Your task to perform on an android device: allow cookies in the chrome app Image 0: 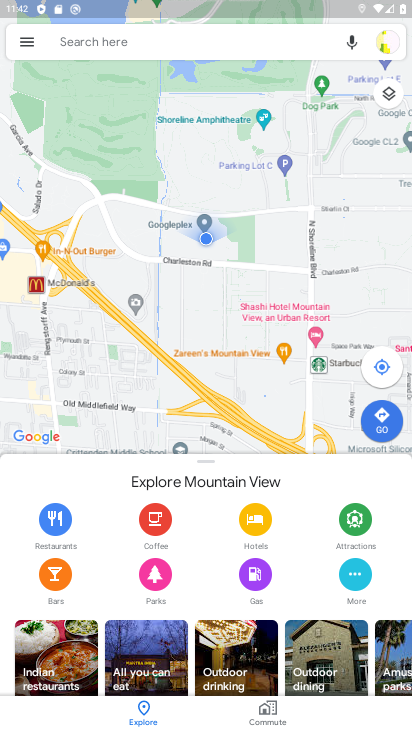
Step 0: press home button
Your task to perform on an android device: allow cookies in the chrome app Image 1: 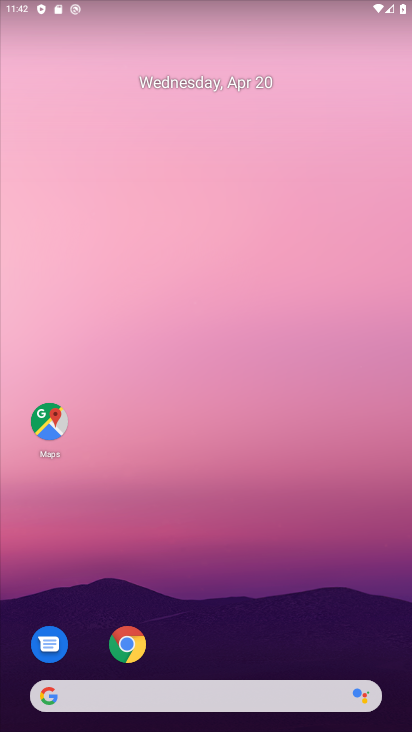
Step 1: click (128, 646)
Your task to perform on an android device: allow cookies in the chrome app Image 2: 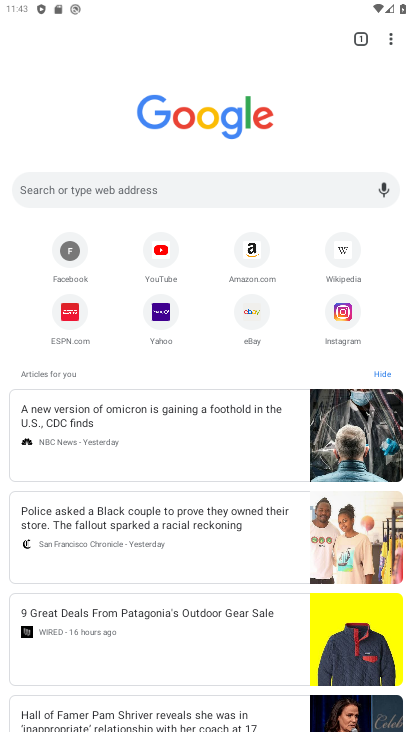
Step 2: click (389, 40)
Your task to perform on an android device: allow cookies in the chrome app Image 3: 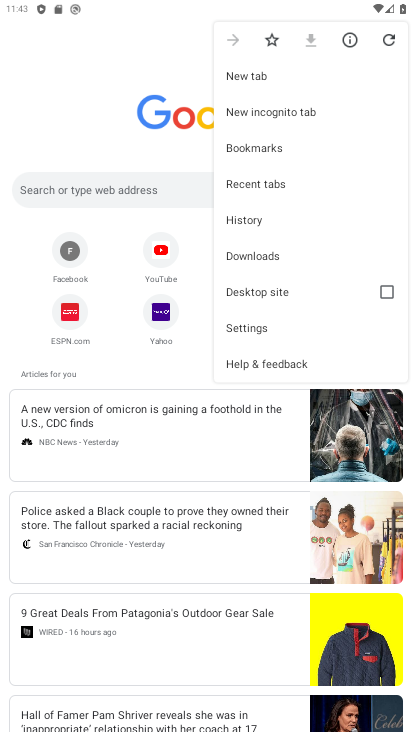
Step 3: click (248, 321)
Your task to perform on an android device: allow cookies in the chrome app Image 4: 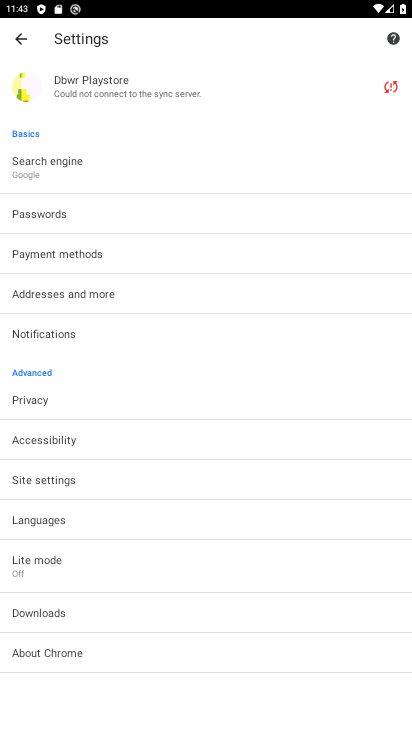
Step 4: click (40, 481)
Your task to perform on an android device: allow cookies in the chrome app Image 5: 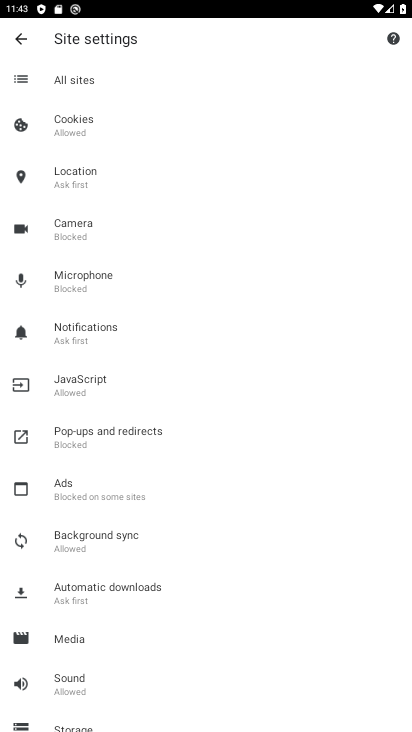
Step 5: click (71, 113)
Your task to perform on an android device: allow cookies in the chrome app Image 6: 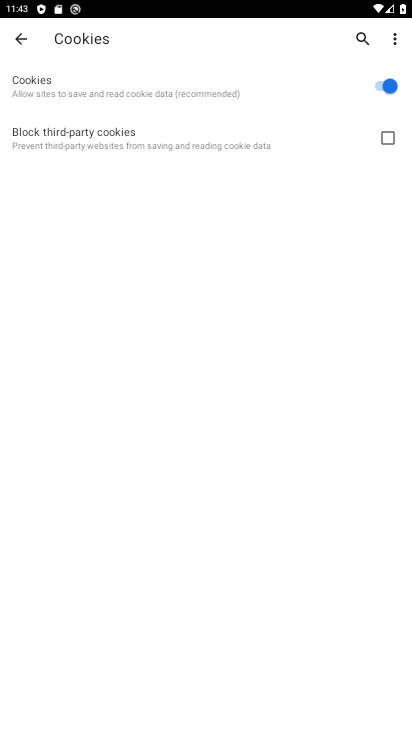
Step 6: task complete